Your task to perform on an android device: Search for a new phone on Amazon. Image 0: 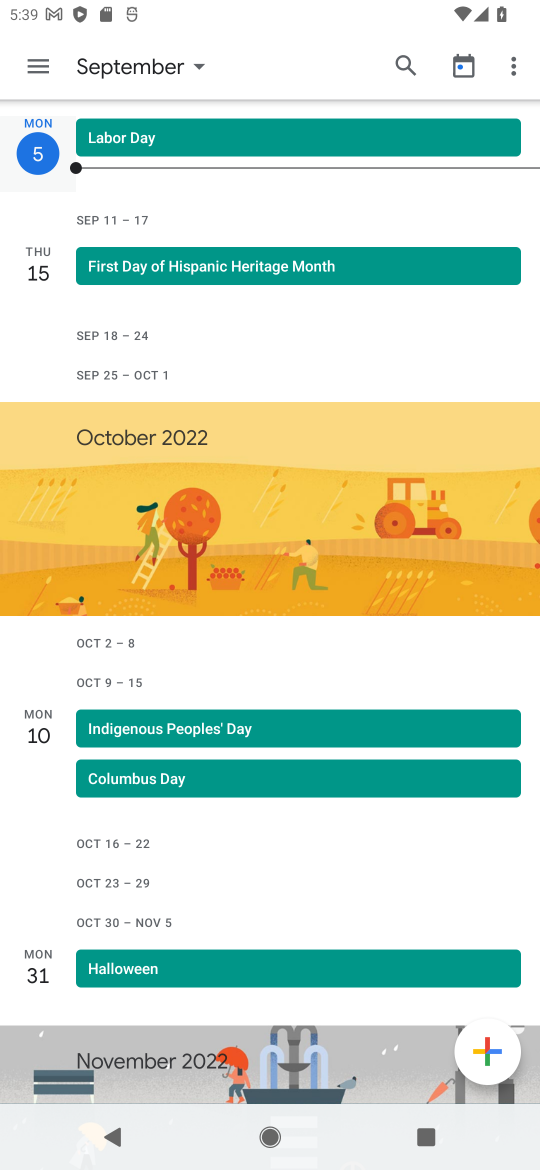
Step 0: press home button
Your task to perform on an android device: Search for a new phone on Amazon. Image 1: 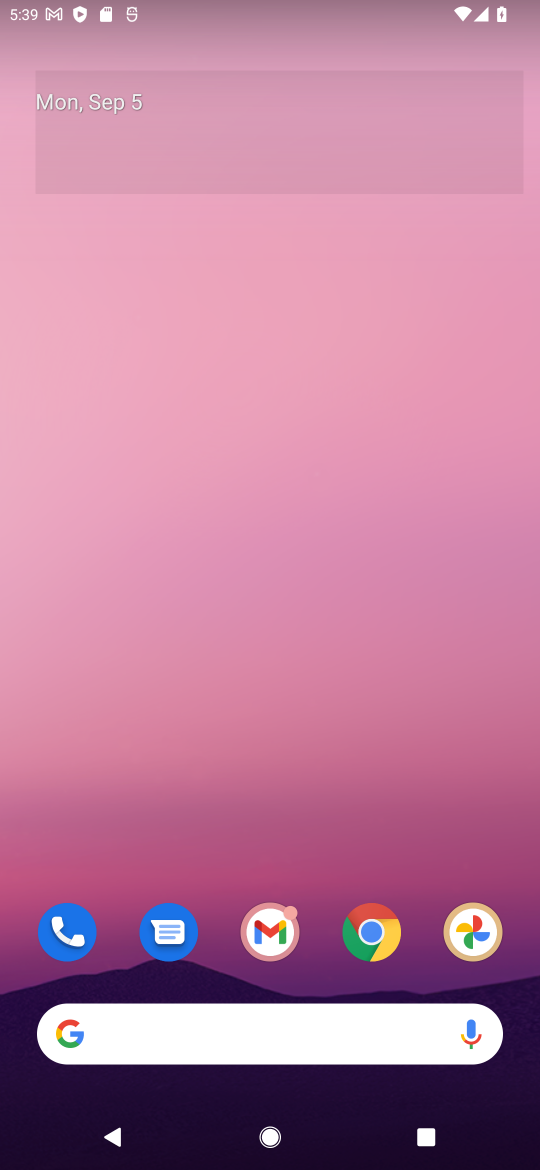
Step 1: drag from (314, 899) to (318, 93)
Your task to perform on an android device: Search for a new phone on Amazon. Image 2: 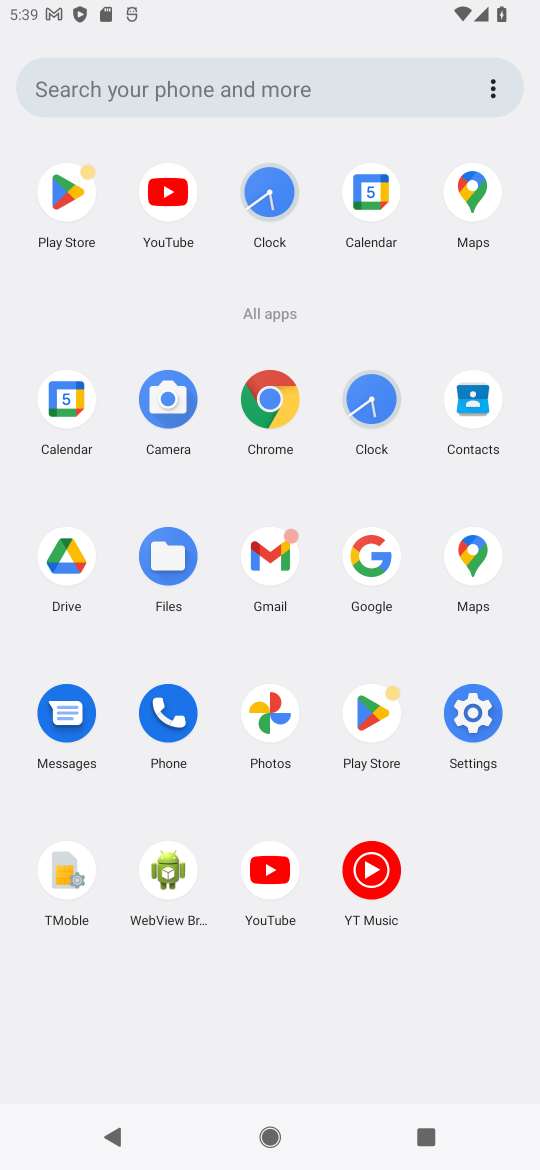
Step 2: click (371, 552)
Your task to perform on an android device: Search for a new phone on Amazon. Image 3: 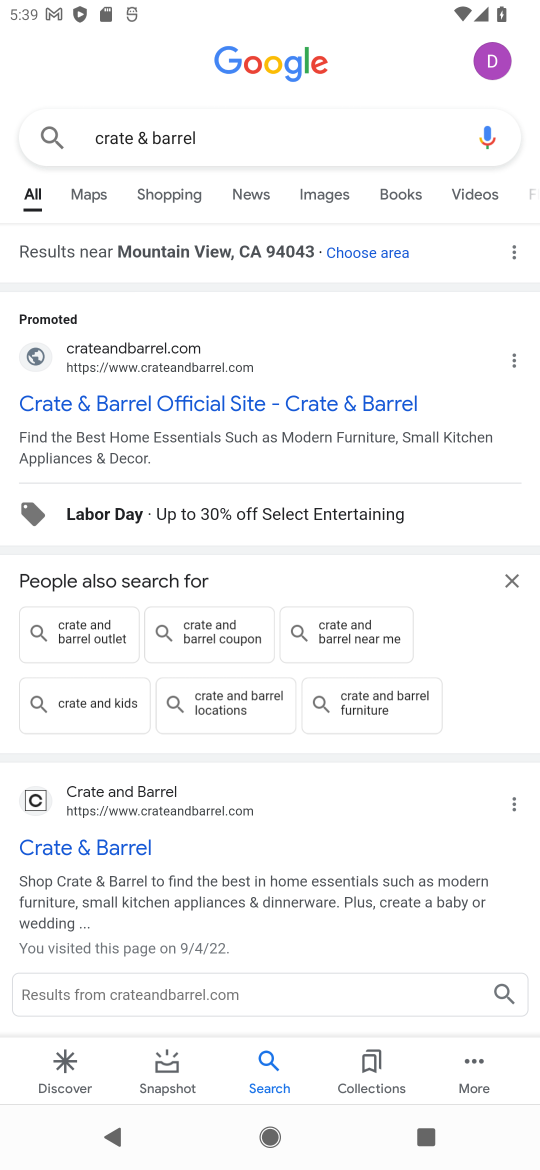
Step 3: click (224, 131)
Your task to perform on an android device: Search for a new phone on Amazon. Image 4: 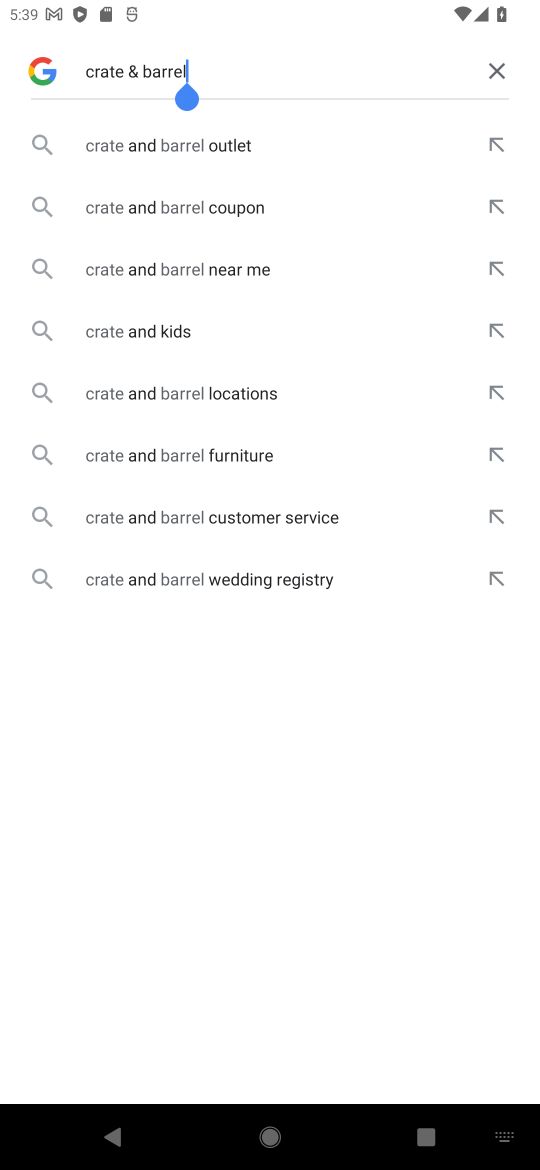
Step 4: click (497, 68)
Your task to perform on an android device: Search for a new phone on Amazon. Image 5: 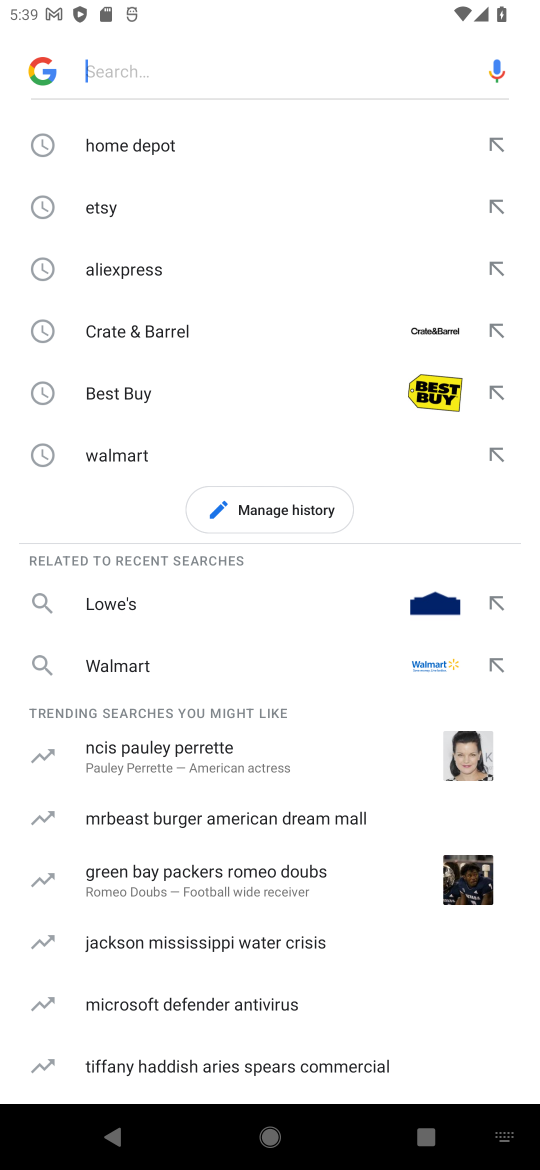
Step 5: type "Amazon"
Your task to perform on an android device: Search for a new phone on Amazon. Image 6: 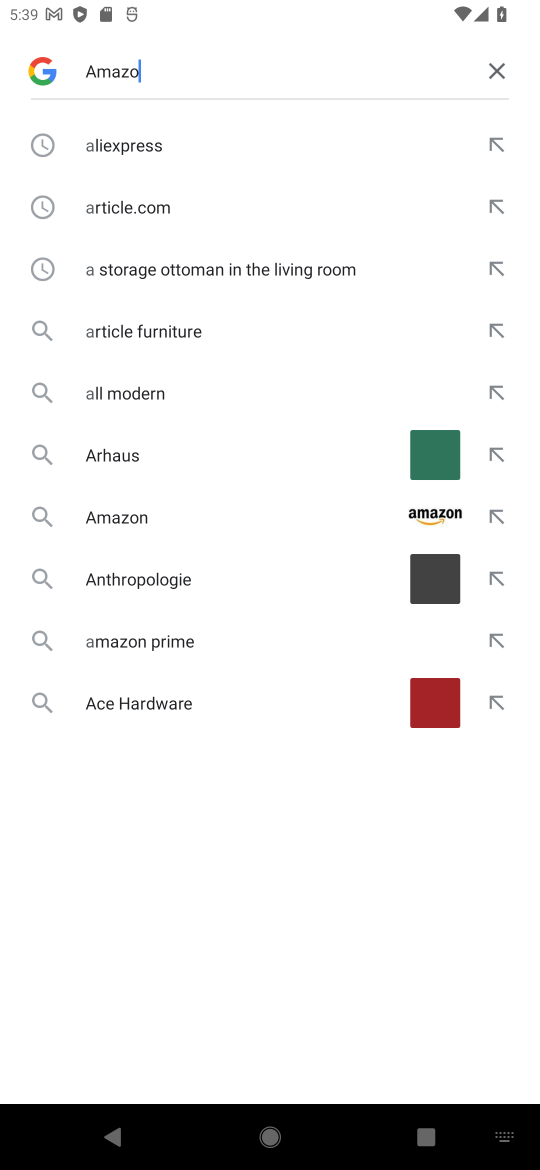
Step 6: type ""
Your task to perform on an android device: Search for a new phone on Amazon. Image 7: 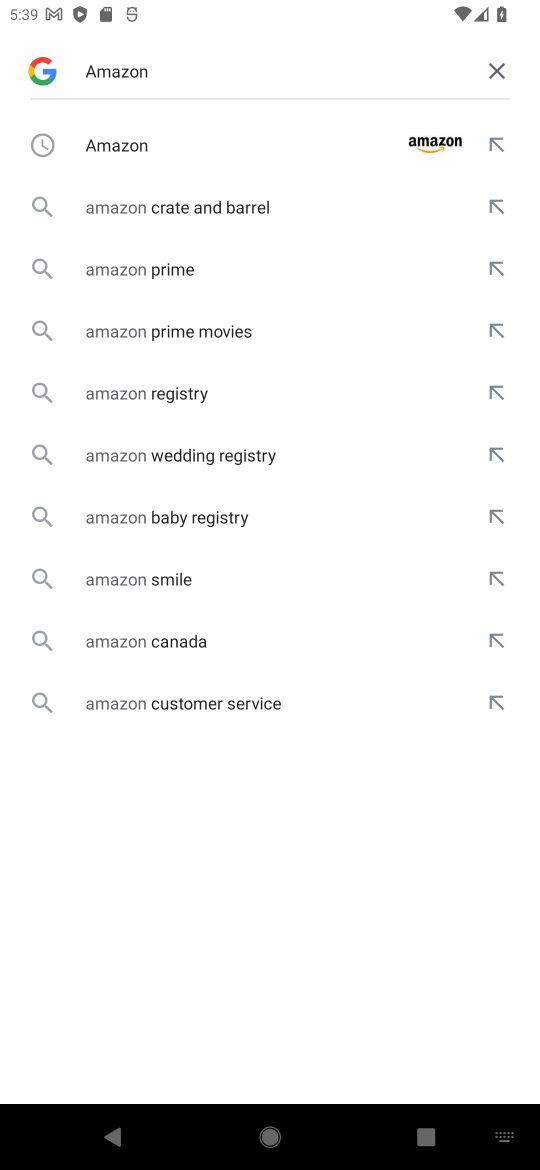
Step 7: click (140, 148)
Your task to perform on an android device: Search for a new phone on Amazon. Image 8: 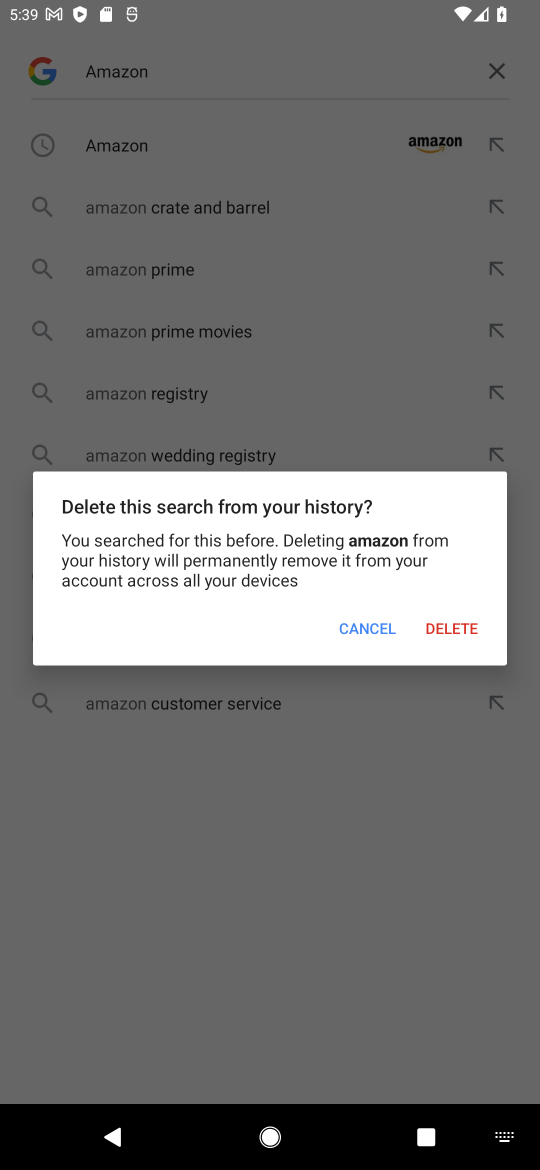
Step 8: click (354, 618)
Your task to perform on an android device: Search for a new phone on Amazon. Image 9: 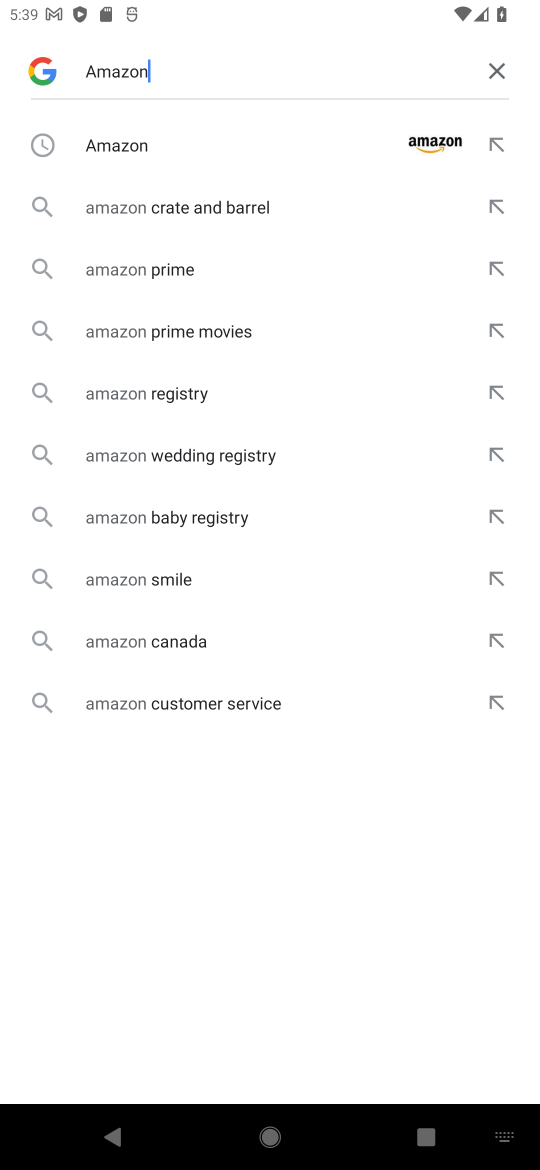
Step 9: click (109, 137)
Your task to perform on an android device: Search for a new phone on Amazon. Image 10: 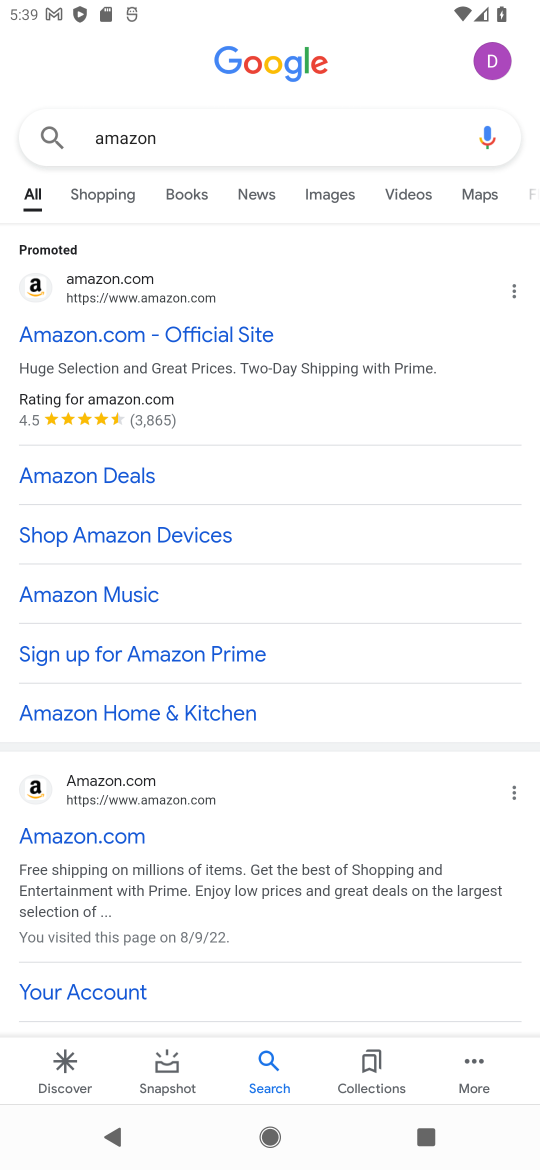
Step 10: click (130, 329)
Your task to perform on an android device: Search for a new phone on Amazon. Image 11: 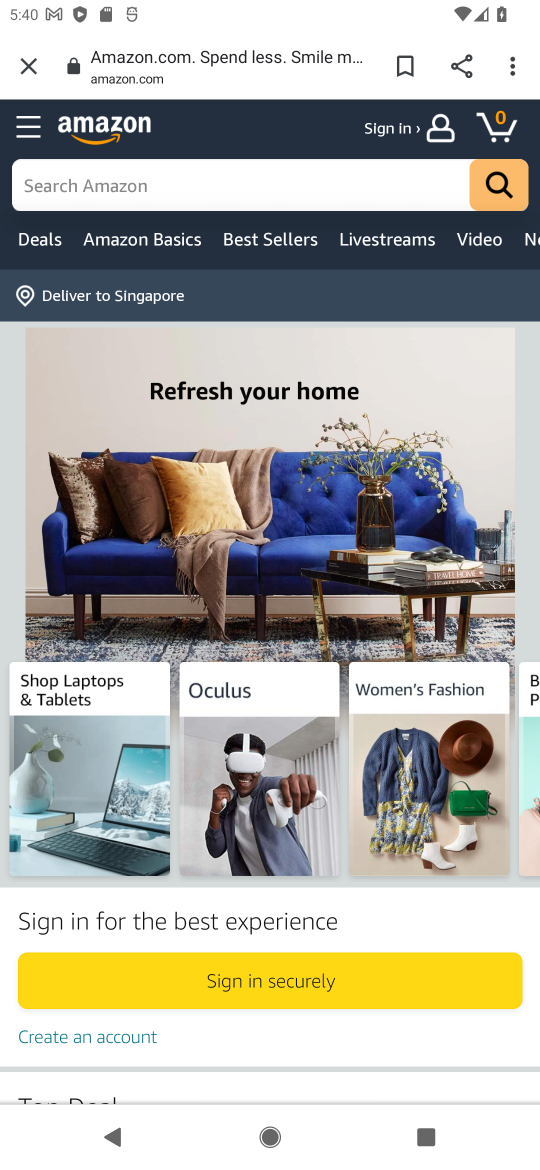
Step 11: click (130, 188)
Your task to perform on an android device: Search for a new phone on Amazon. Image 12: 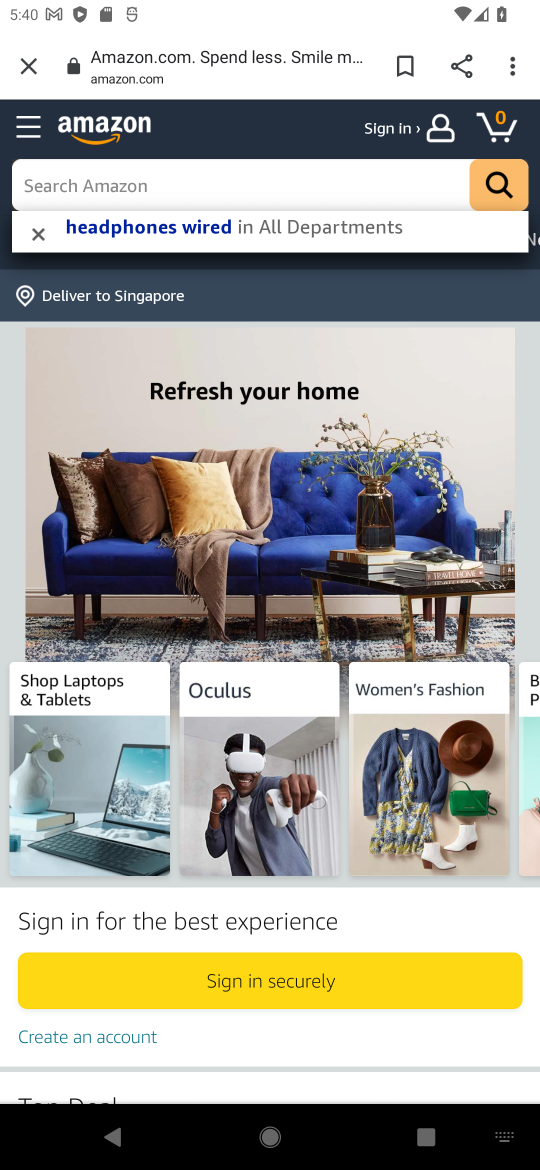
Step 12: type "new phone"
Your task to perform on an android device: Search for a new phone on Amazon. Image 13: 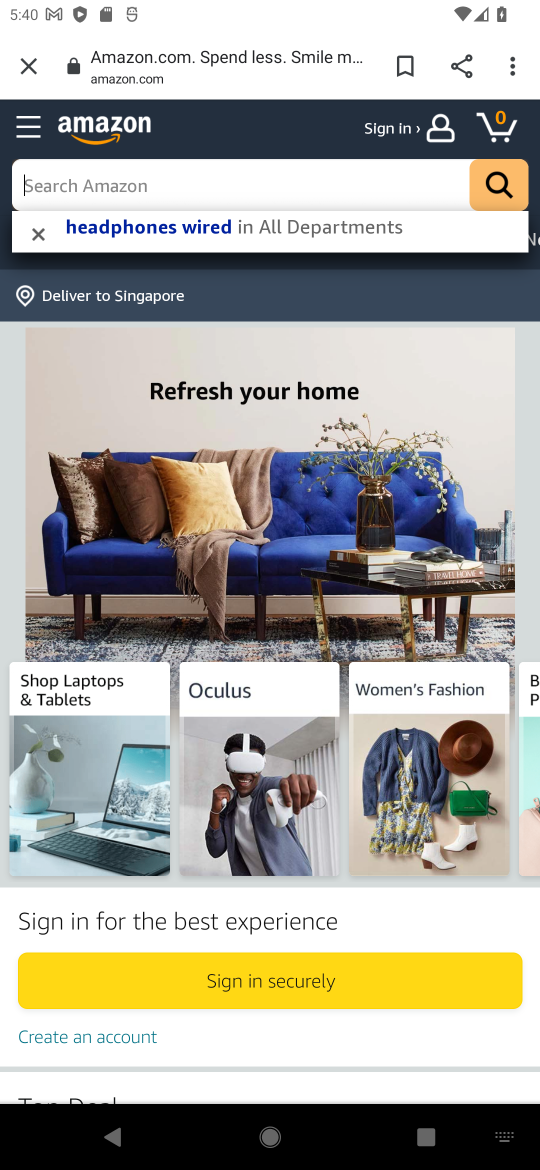
Step 13: type ""
Your task to perform on an android device: Search for a new phone on Amazon. Image 14: 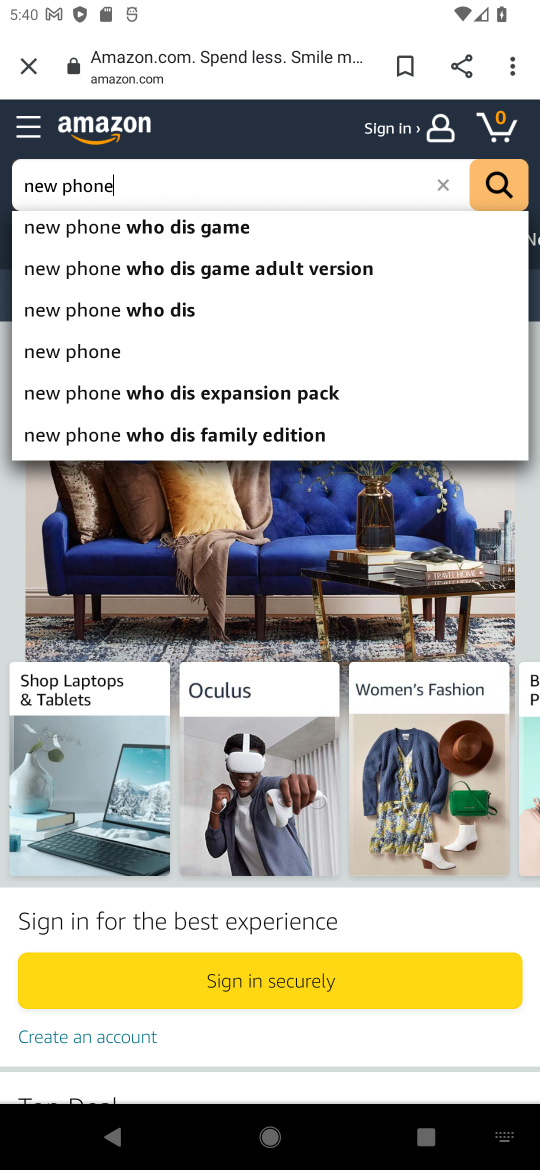
Step 14: click (87, 354)
Your task to perform on an android device: Search for a new phone on Amazon. Image 15: 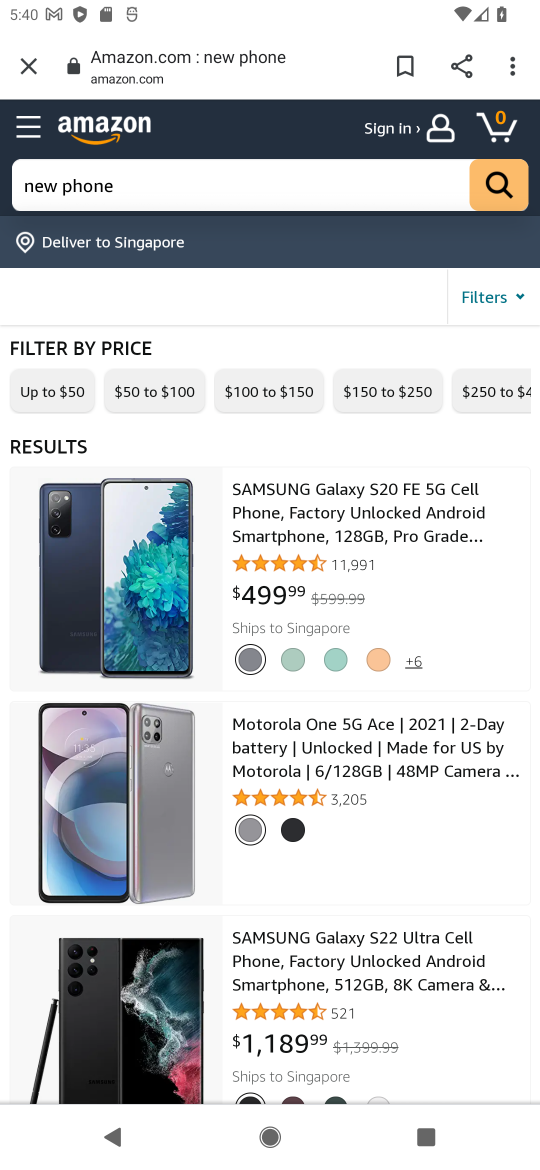
Step 15: task complete